Your task to perform on an android device: empty trash in google photos Image 0: 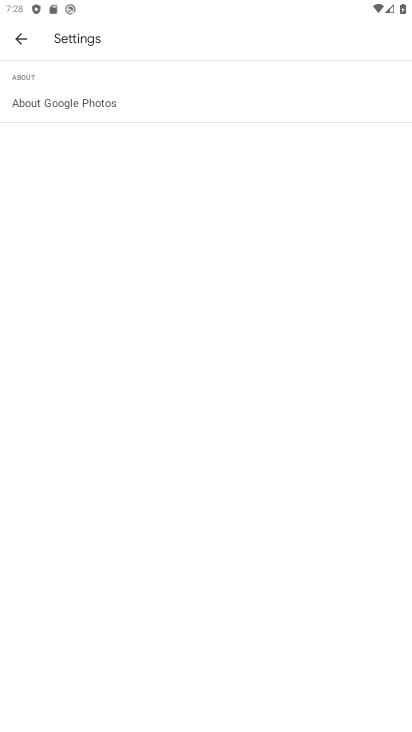
Step 0: press home button
Your task to perform on an android device: empty trash in google photos Image 1: 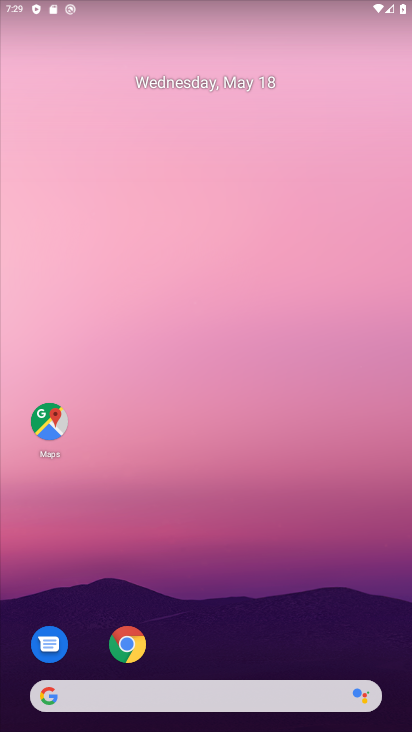
Step 1: drag from (230, 706) to (131, 247)
Your task to perform on an android device: empty trash in google photos Image 2: 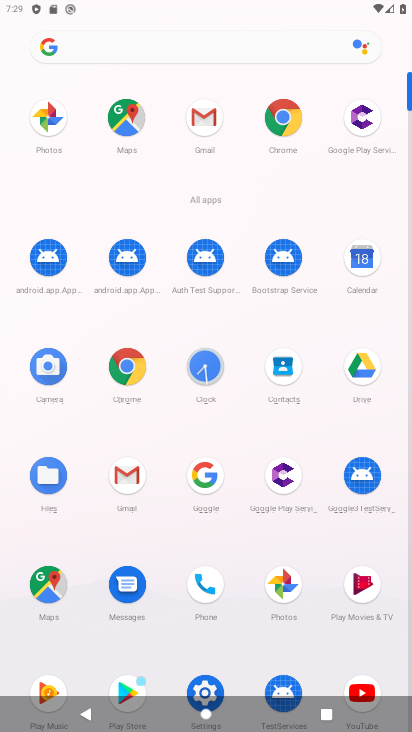
Step 2: click (292, 587)
Your task to perform on an android device: empty trash in google photos Image 3: 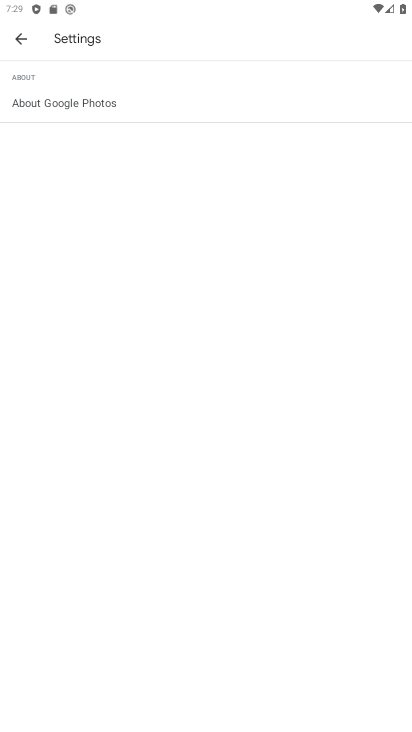
Step 3: click (10, 39)
Your task to perform on an android device: empty trash in google photos Image 4: 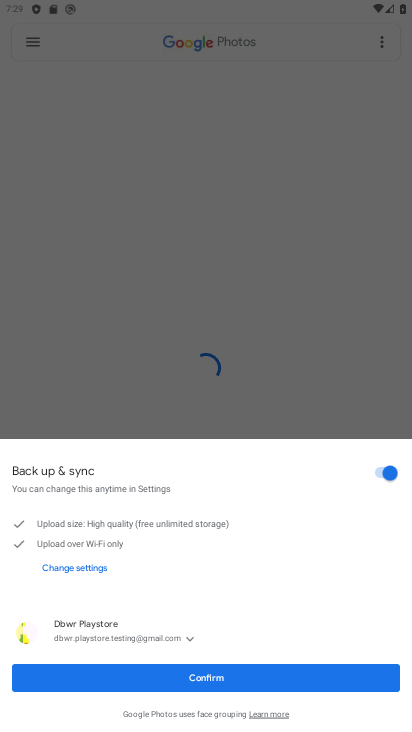
Step 4: click (218, 673)
Your task to perform on an android device: empty trash in google photos Image 5: 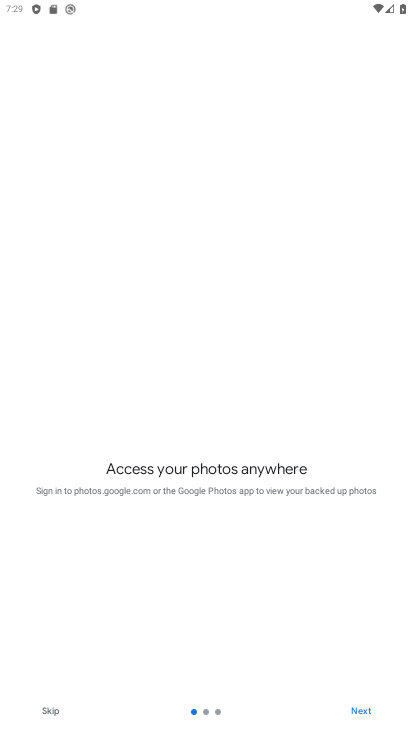
Step 5: click (341, 713)
Your task to perform on an android device: empty trash in google photos Image 6: 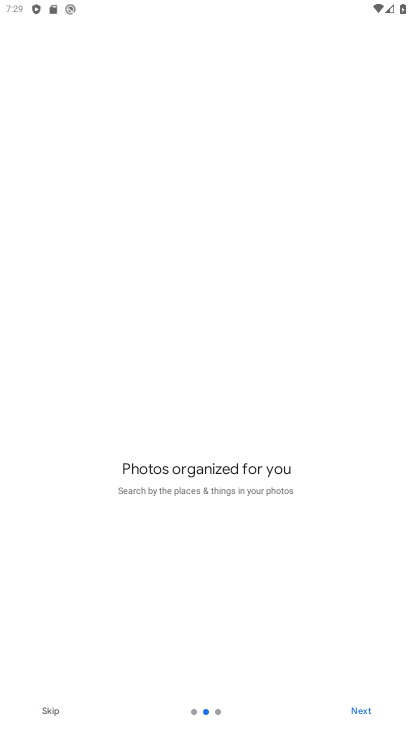
Step 6: click (360, 703)
Your task to perform on an android device: empty trash in google photos Image 7: 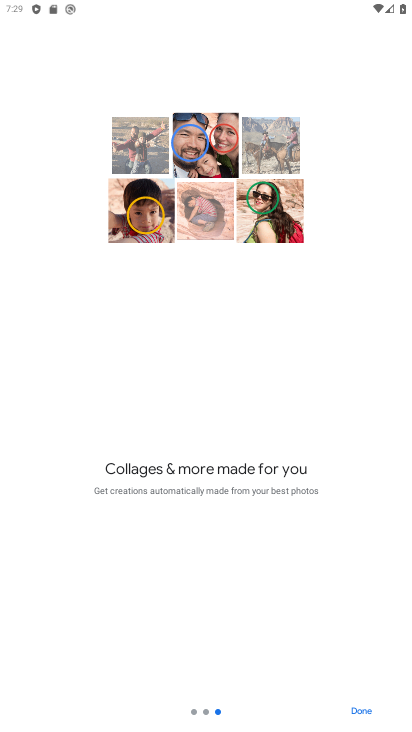
Step 7: click (355, 712)
Your task to perform on an android device: empty trash in google photos Image 8: 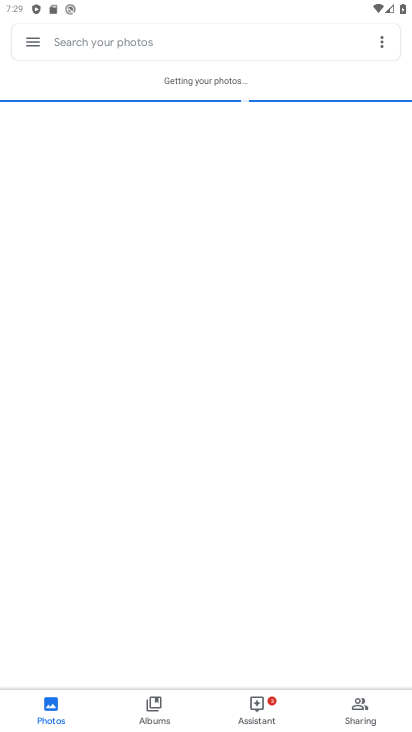
Step 8: click (34, 54)
Your task to perform on an android device: empty trash in google photos Image 9: 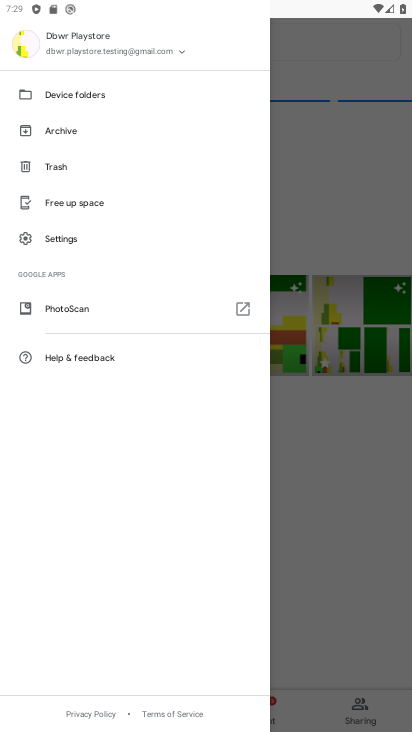
Step 9: click (51, 171)
Your task to perform on an android device: empty trash in google photos Image 10: 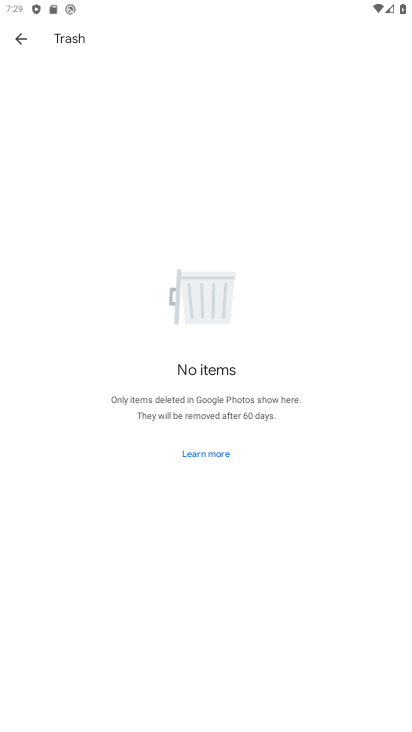
Step 10: task complete